Your task to perform on an android device: turn on wifi Image 0: 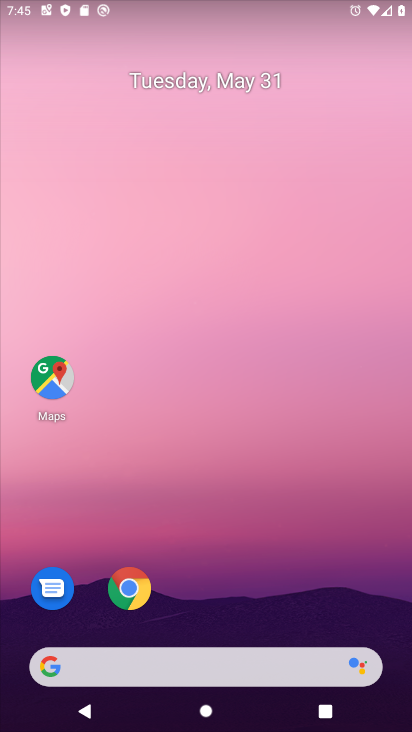
Step 0: drag from (221, 602) to (306, 192)
Your task to perform on an android device: turn on wifi Image 1: 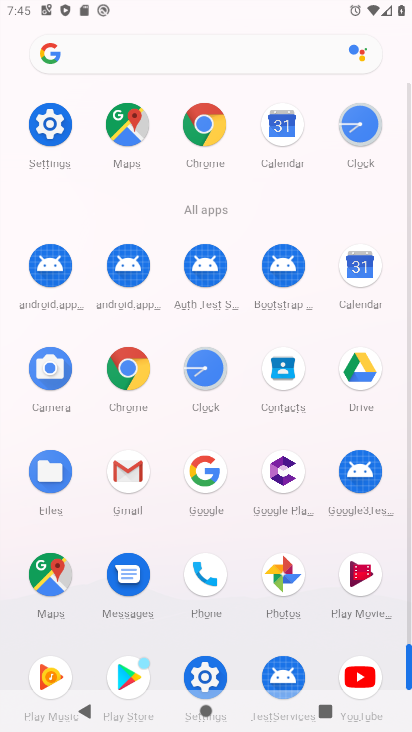
Step 1: click (53, 148)
Your task to perform on an android device: turn on wifi Image 2: 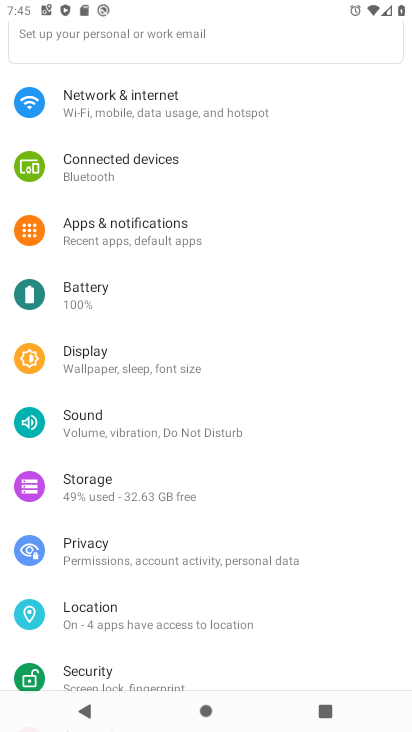
Step 2: click (122, 80)
Your task to perform on an android device: turn on wifi Image 3: 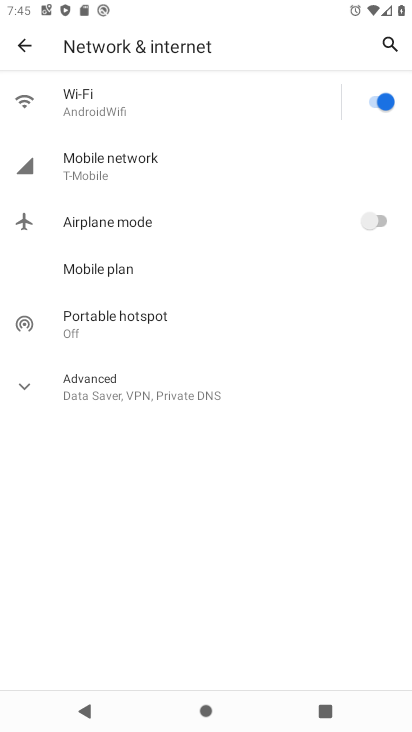
Step 3: task complete